Your task to perform on an android device: turn off translation in the chrome app Image 0: 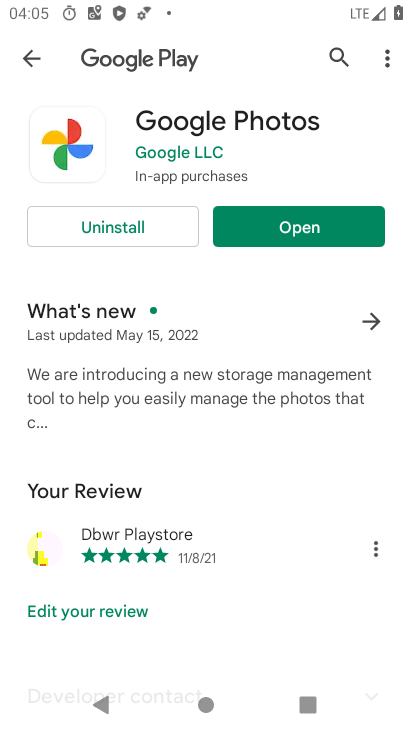
Step 0: press home button
Your task to perform on an android device: turn off translation in the chrome app Image 1: 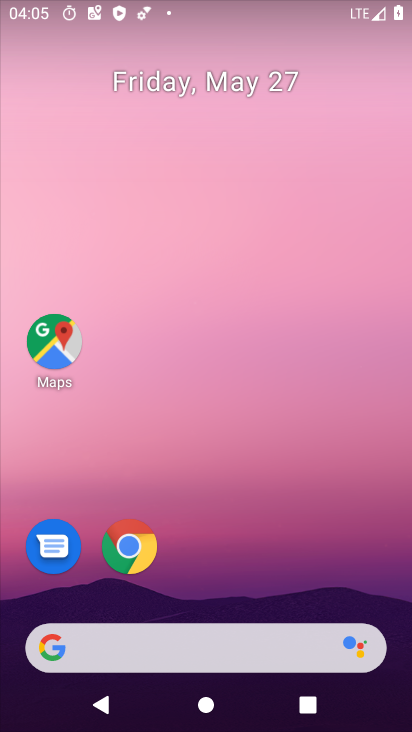
Step 1: drag from (391, 710) to (321, 275)
Your task to perform on an android device: turn off translation in the chrome app Image 2: 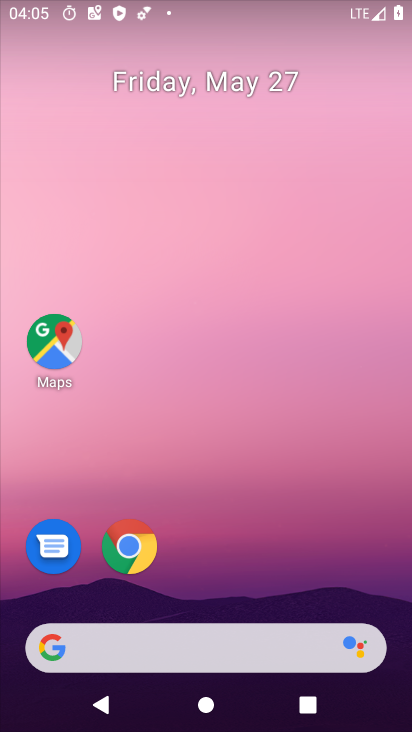
Step 2: drag from (396, 720) to (322, 209)
Your task to perform on an android device: turn off translation in the chrome app Image 3: 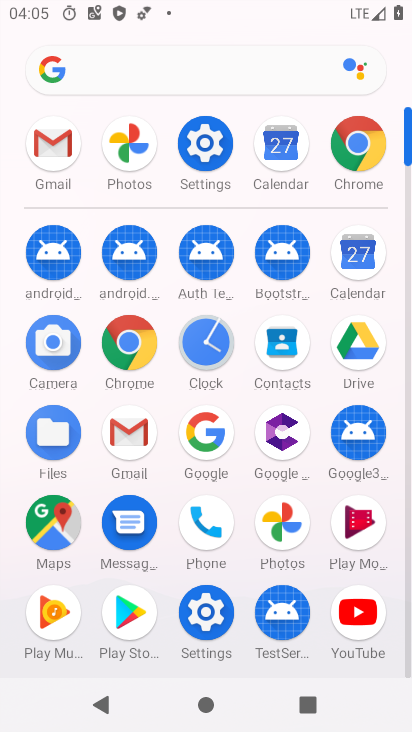
Step 3: click (210, 146)
Your task to perform on an android device: turn off translation in the chrome app Image 4: 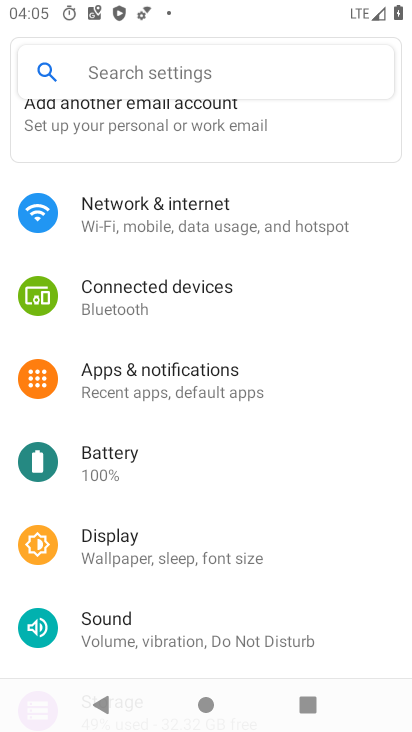
Step 4: click (100, 226)
Your task to perform on an android device: turn off translation in the chrome app Image 5: 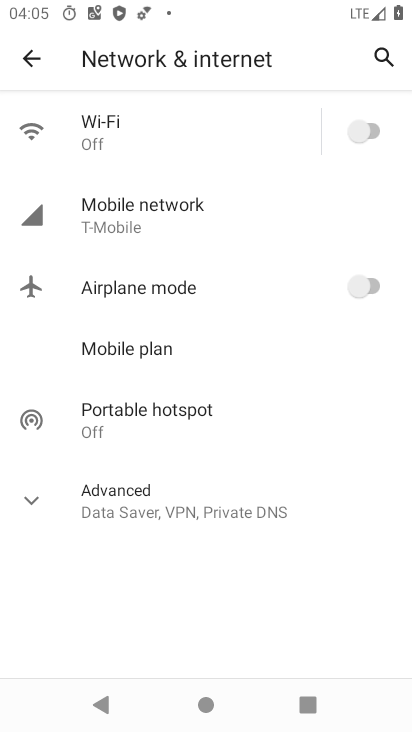
Step 5: click (376, 130)
Your task to perform on an android device: turn off translation in the chrome app Image 6: 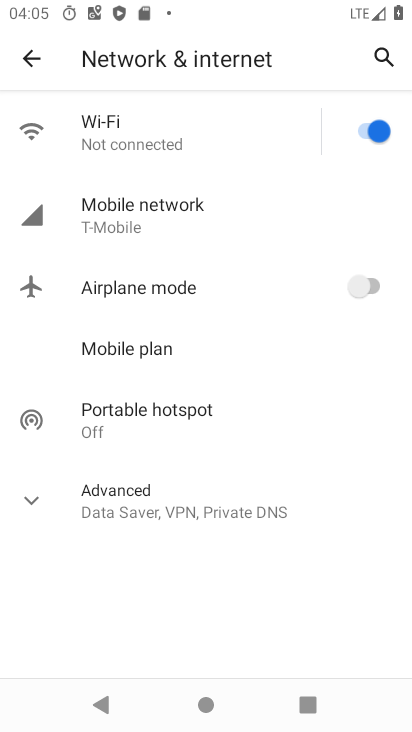
Step 6: press home button
Your task to perform on an android device: turn off translation in the chrome app Image 7: 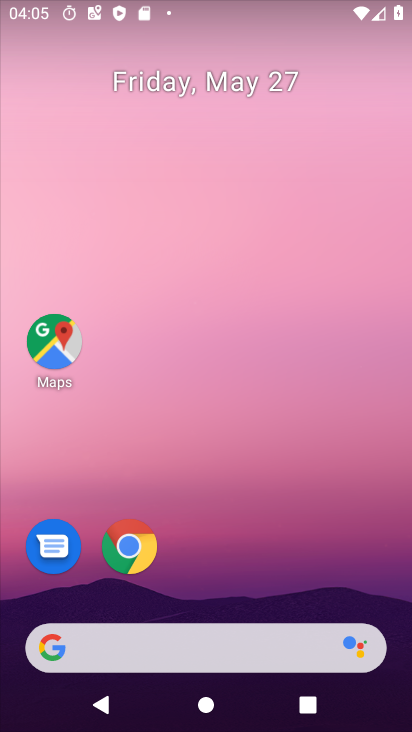
Step 7: click (128, 551)
Your task to perform on an android device: turn off translation in the chrome app Image 8: 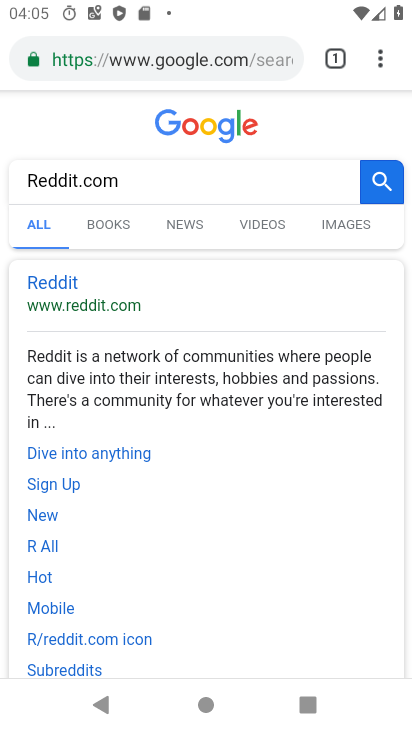
Step 8: click (378, 57)
Your task to perform on an android device: turn off translation in the chrome app Image 9: 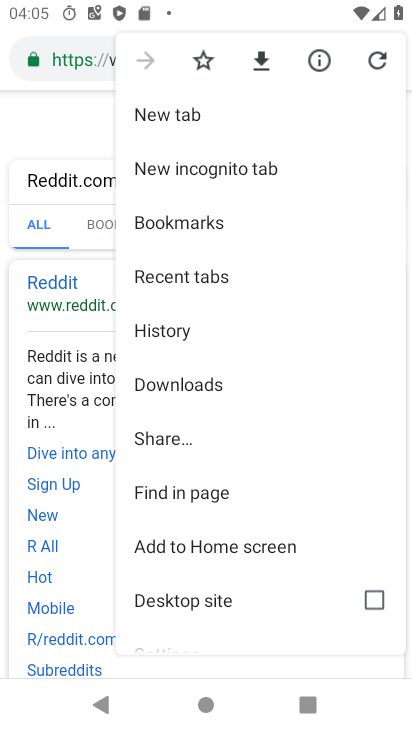
Step 9: drag from (251, 621) to (281, 261)
Your task to perform on an android device: turn off translation in the chrome app Image 10: 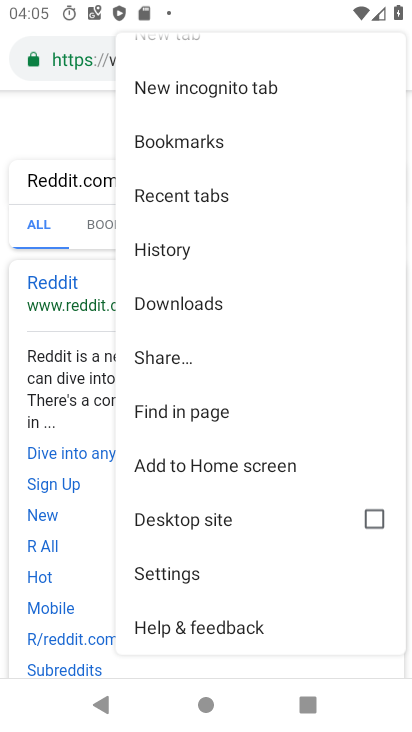
Step 10: click (173, 568)
Your task to perform on an android device: turn off translation in the chrome app Image 11: 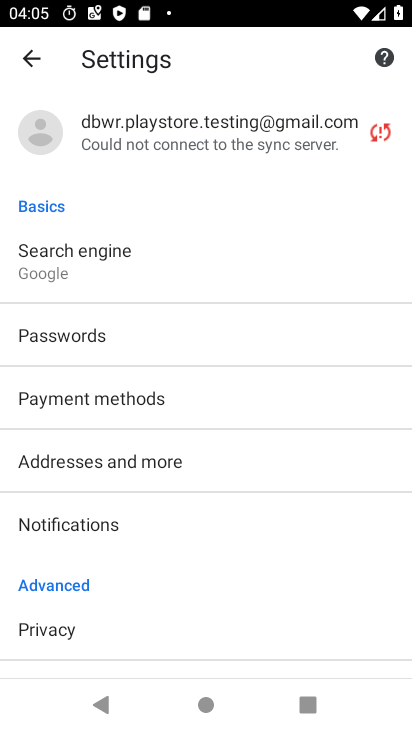
Step 11: drag from (188, 621) to (236, 274)
Your task to perform on an android device: turn off translation in the chrome app Image 12: 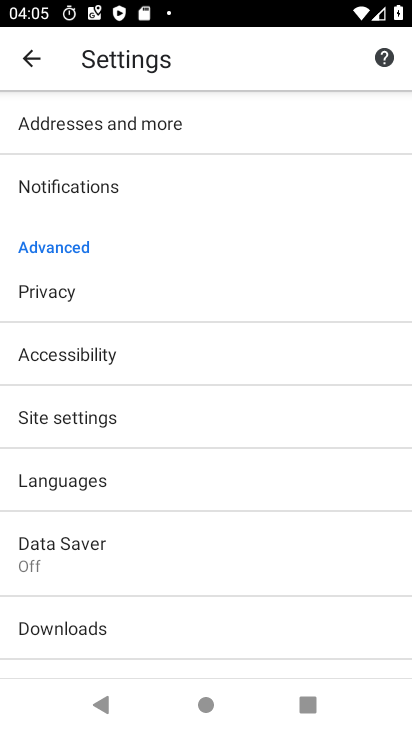
Step 12: click (58, 483)
Your task to perform on an android device: turn off translation in the chrome app Image 13: 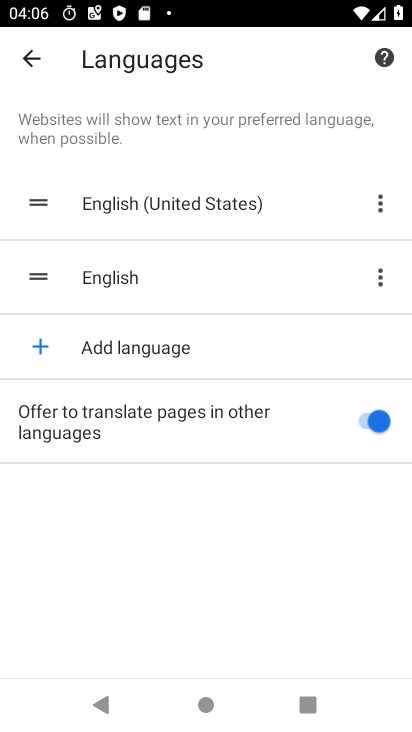
Step 13: click (358, 411)
Your task to perform on an android device: turn off translation in the chrome app Image 14: 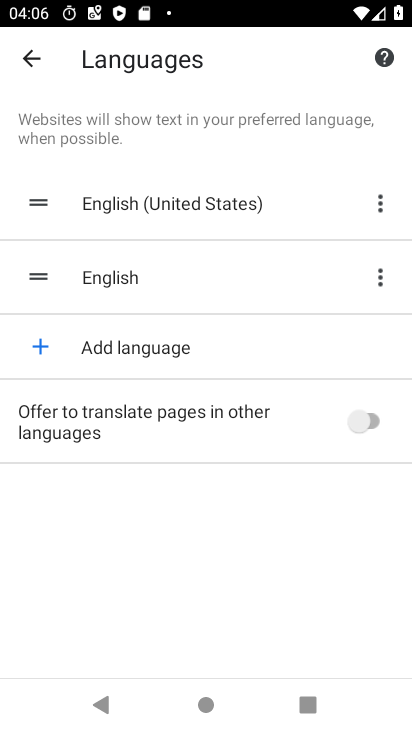
Step 14: task complete